Your task to perform on an android device: Open privacy settings Image 0: 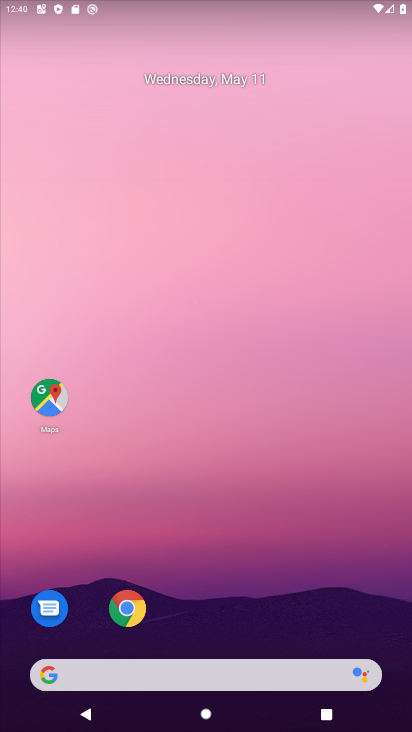
Step 0: click (125, 608)
Your task to perform on an android device: Open privacy settings Image 1: 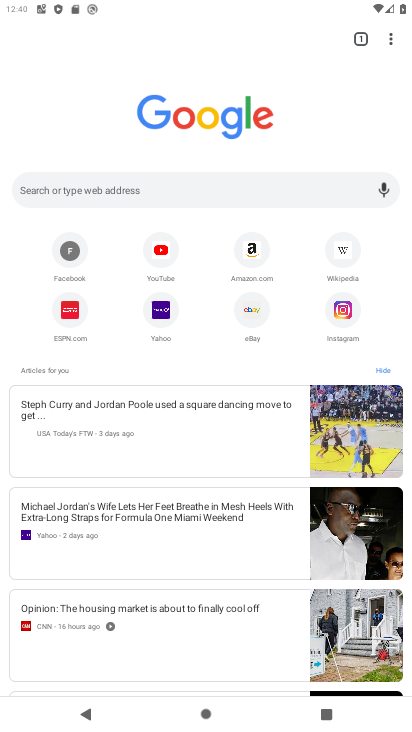
Step 1: drag from (395, 41) to (299, 370)
Your task to perform on an android device: Open privacy settings Image 2: 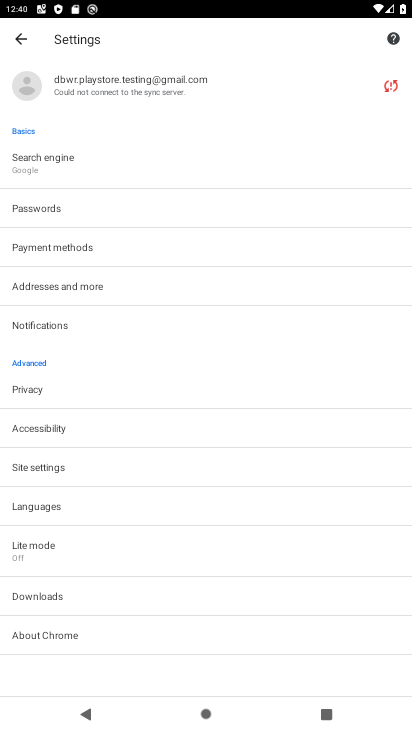
Step 2: click (135, 380)
Your task to perform on an android device: Open privacy settings Image 3: 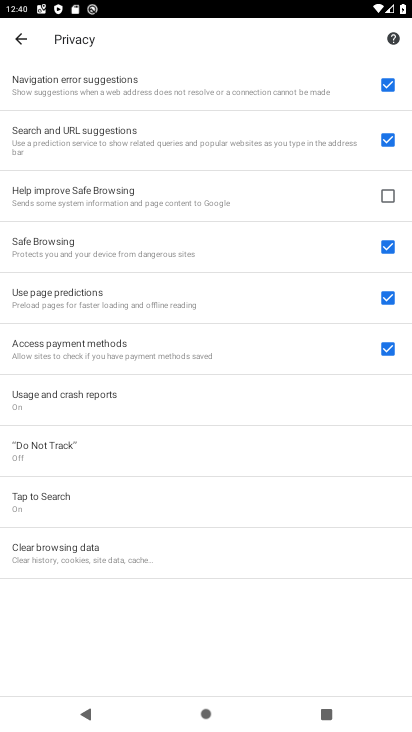
Step 3: task complete